Your task to perform on an android device: check android version Image 0: 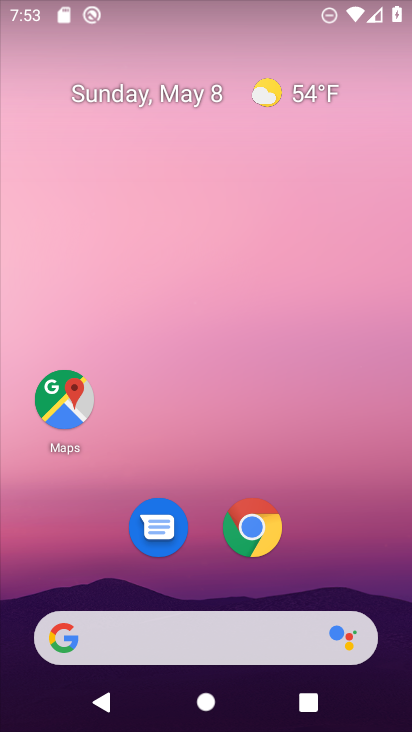
Step 0: click (350, 126)
Your task to perform on an android device: check android version Image 1: 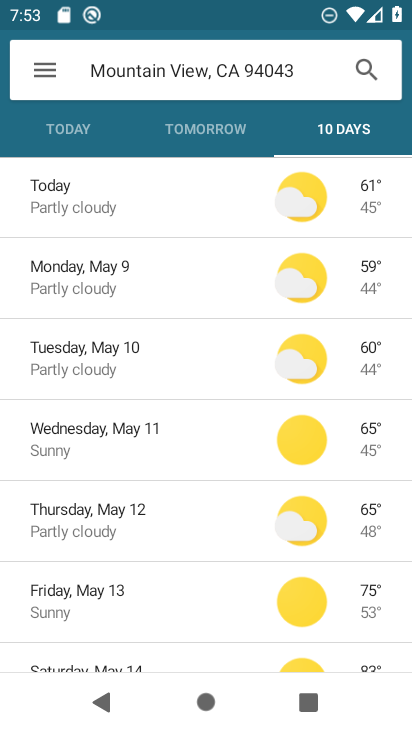
Step 1: press home button
Your task to perform on an android device: check android version Image 2: 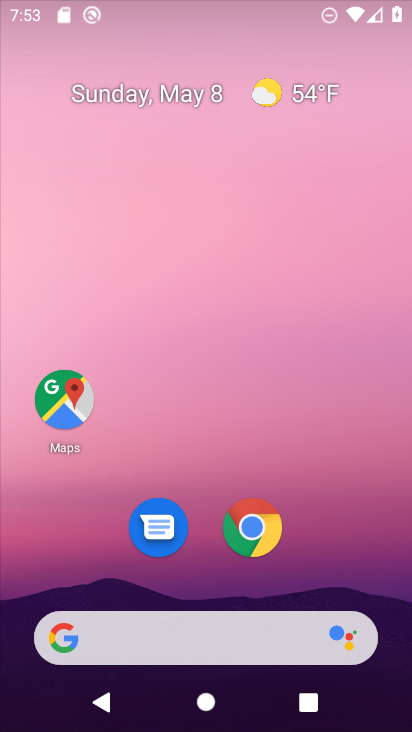
Step 2: drag from (368, 536) to (311, 68)
Your task to perform on an android device: check android version Image 3: 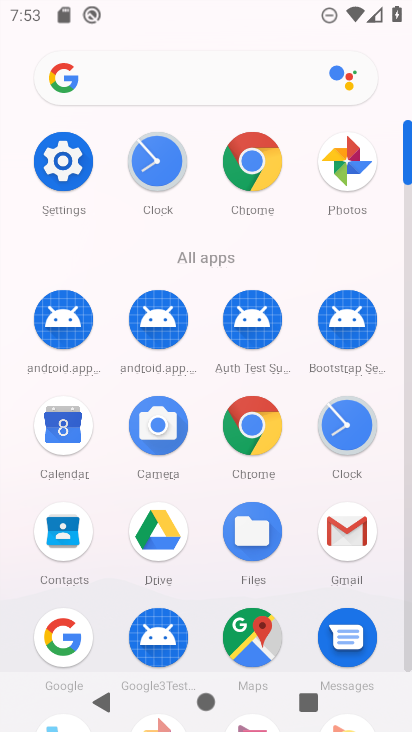
Step 3: click (68, 161)
Your task to perform on an android device: check android version Image 4: 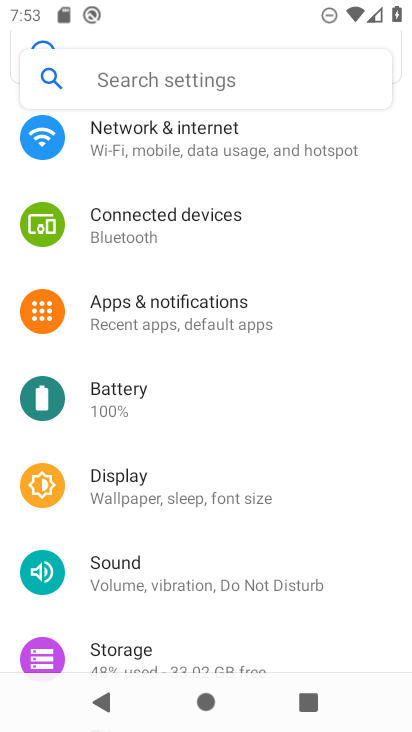
Step 4: drag from (236, 586) to (346, 108)
Your task to perform on an android device: check android version Image 5: 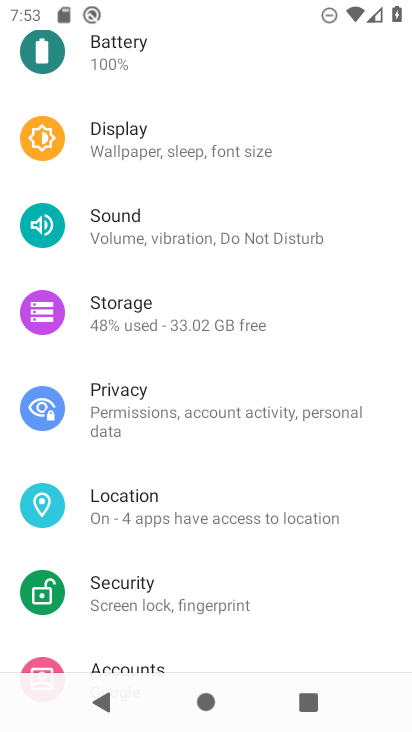
Step 5: drag from (268, 644) to (336, 183)
Your task to perform on an android device: check android version Image 6: 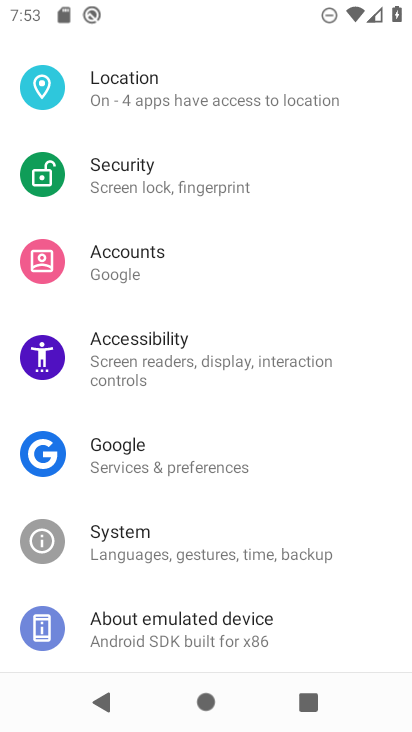
Step 6: drag from (163, 584) to (267, 302)
Your task to perform on an android device: check android version Image 7: 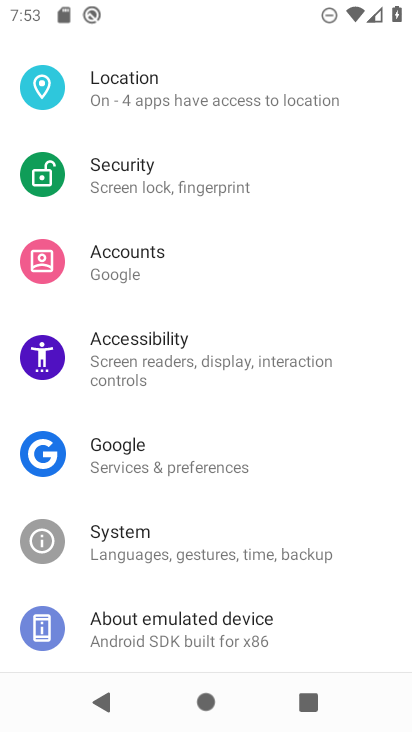
Step 7: click (139, 634)
Your task to perform on an android device: check android version Image 8: 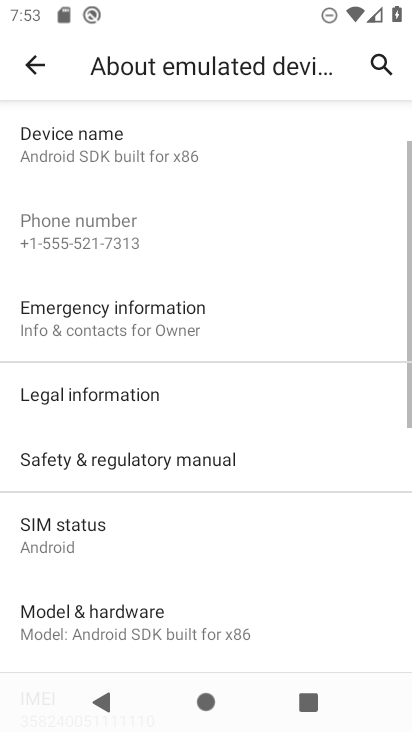
Step 8: drag from (242, 556) to (376, 210)
Your task to perform on an android device: check android version Image 9: 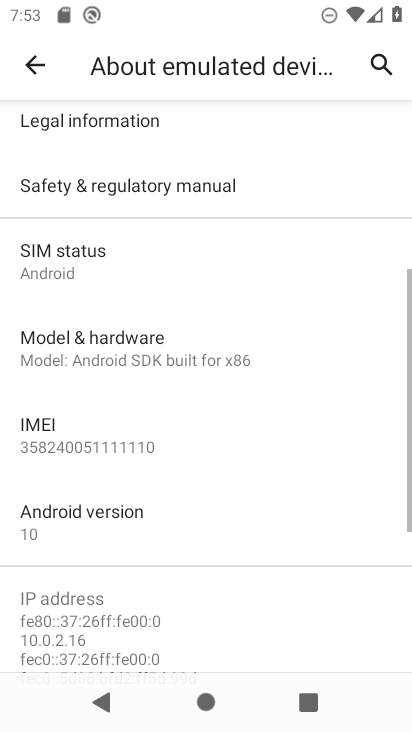
Step 9: click (185, 536)
Your task to perform on an android device: check android version Image 10: 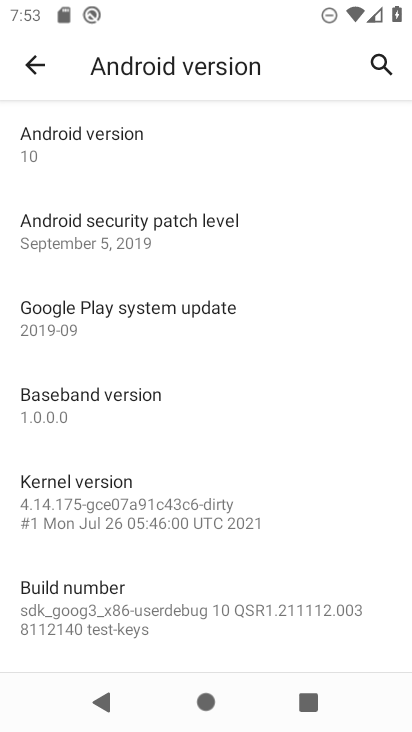
Step 10: click (165, 160)
Your task to perform on an android device: check android version Image 11: 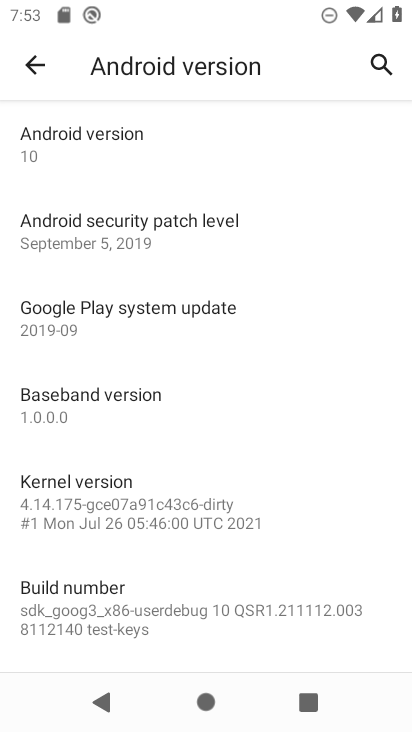
Step 11: task complete